Your task to perform on an android device: install app "Yahoo Mail" Image 0: 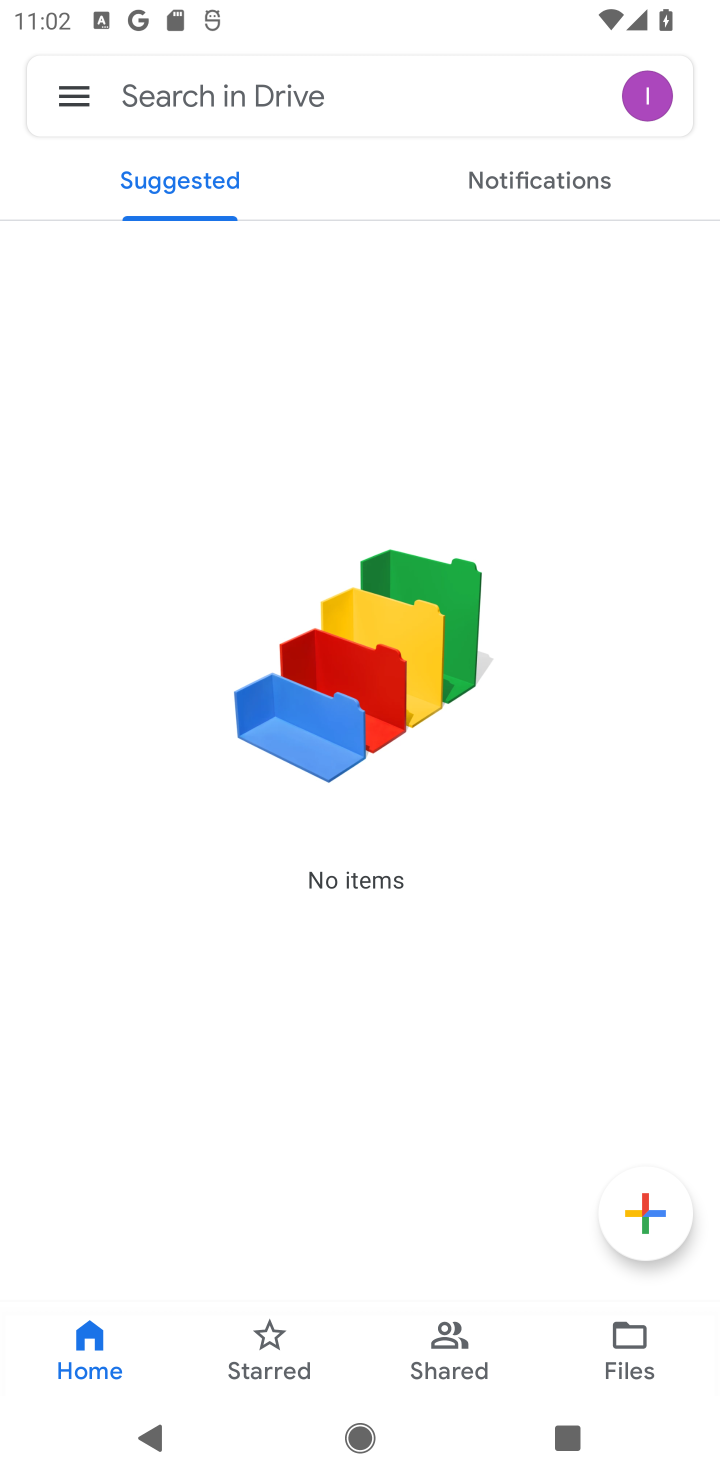
Step 0: press back button
Your task to perform on an android device: install app "Yahoo Mail" Image 1: 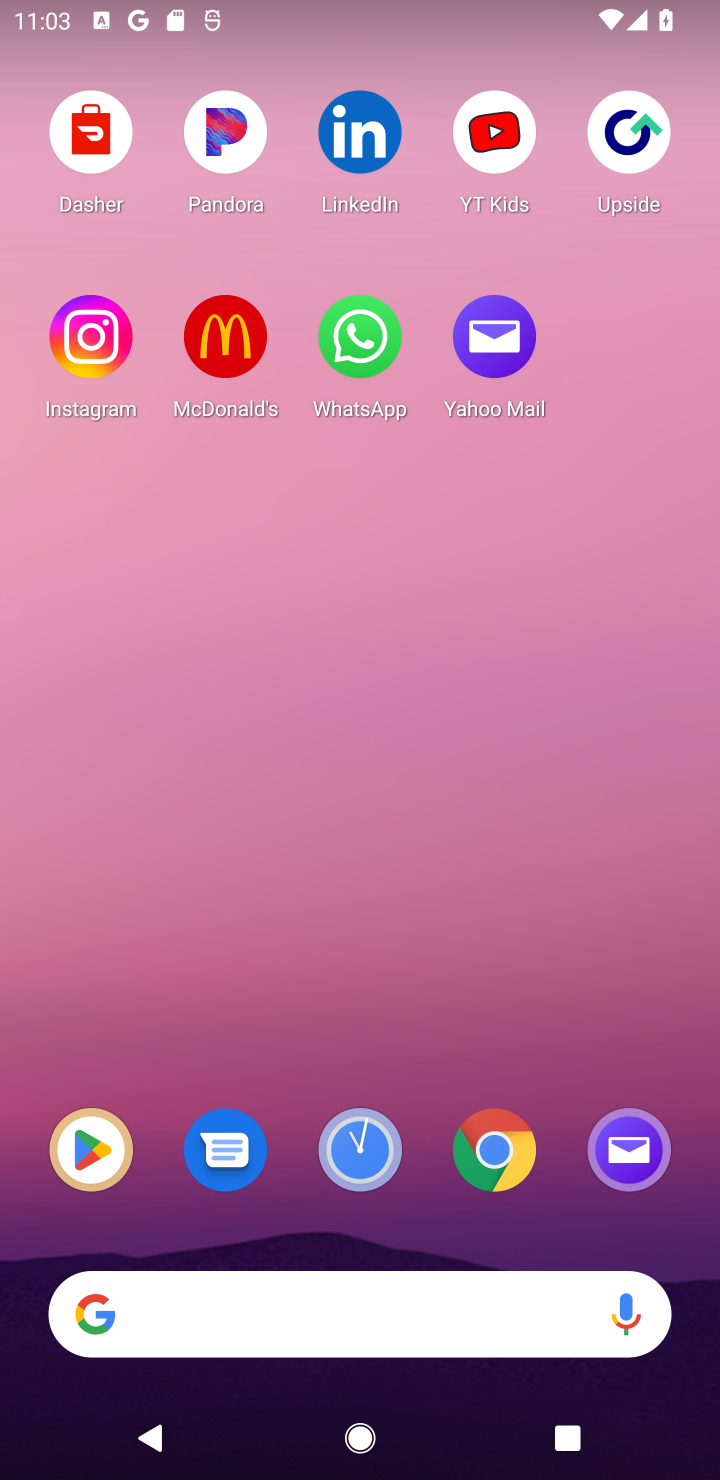
Step 1: click (491, 381)
Your task to perform on an android device: install app "Yahoo Mail" Image 2: 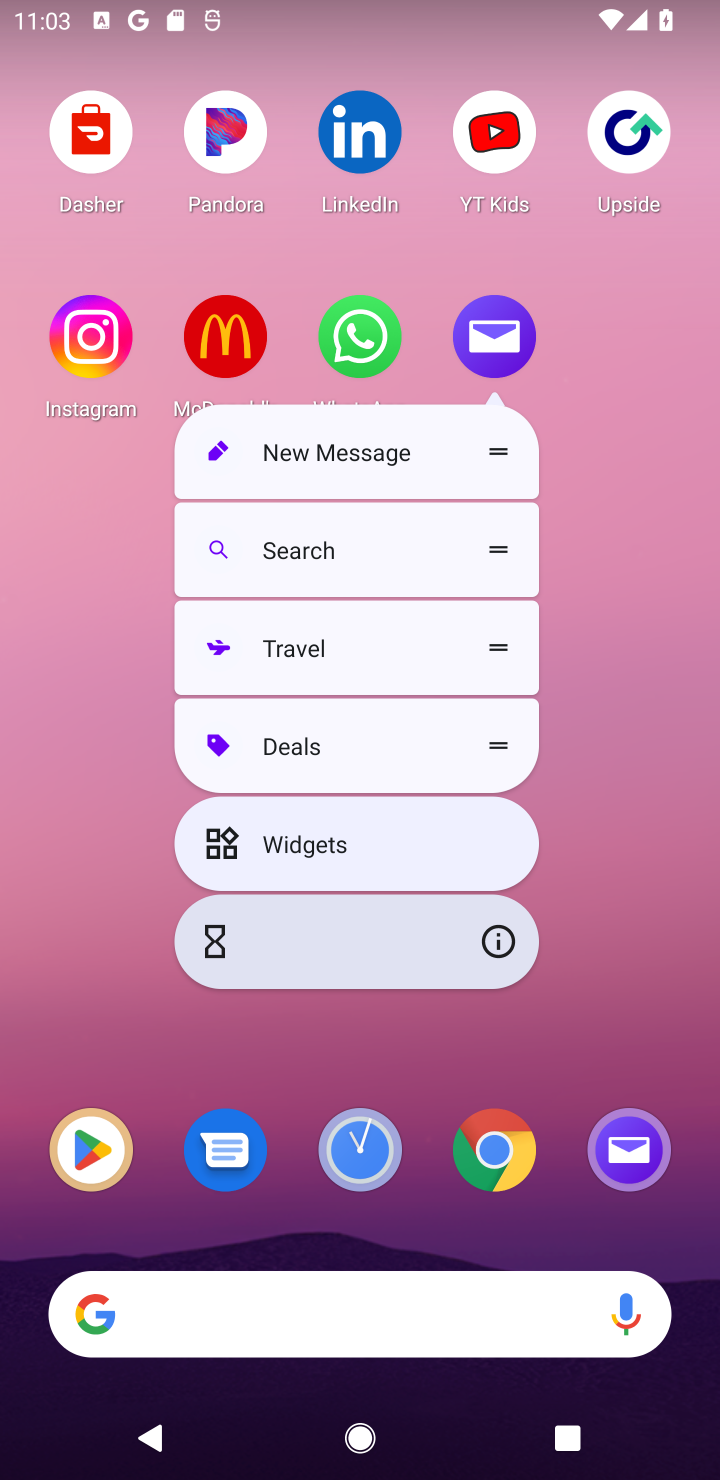
Step 2: click (497, 330)
Your task to perform on an android device: install app "Yahoo Mail" Image 3: 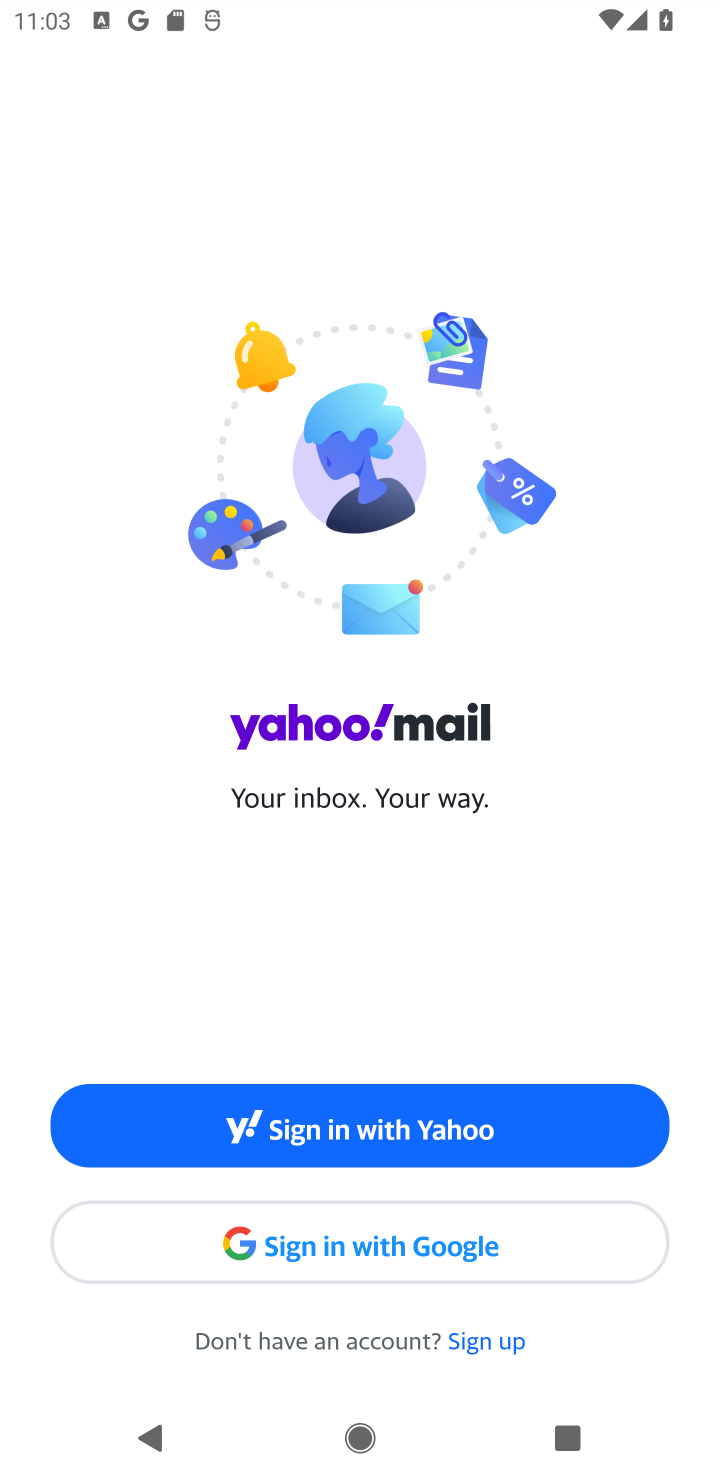
Step 3: task complete